Your task to perform on an android device: open wifi settings Image 0: 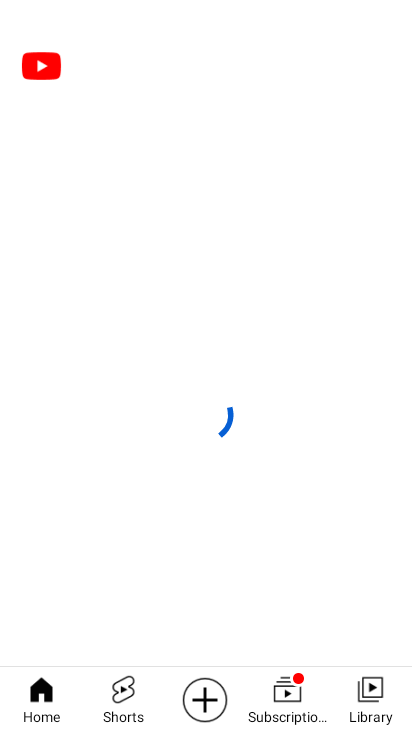
Step 0: click (263, 71)
Your task to perform on an android device: open wifi settings Image 1: 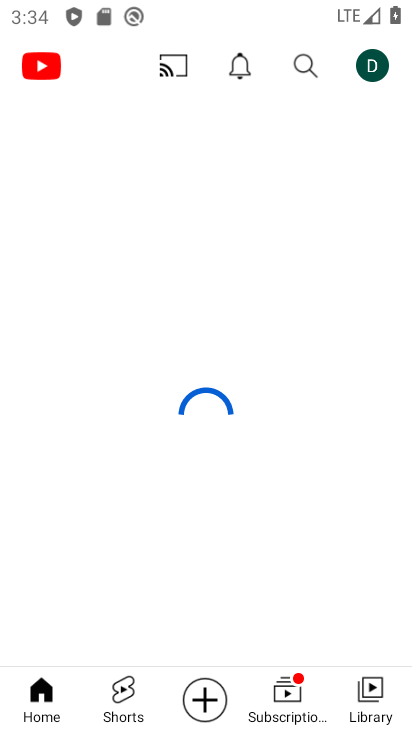
Step 1: press home button
Your task to perform on an android device: open wifi settings Image 2: 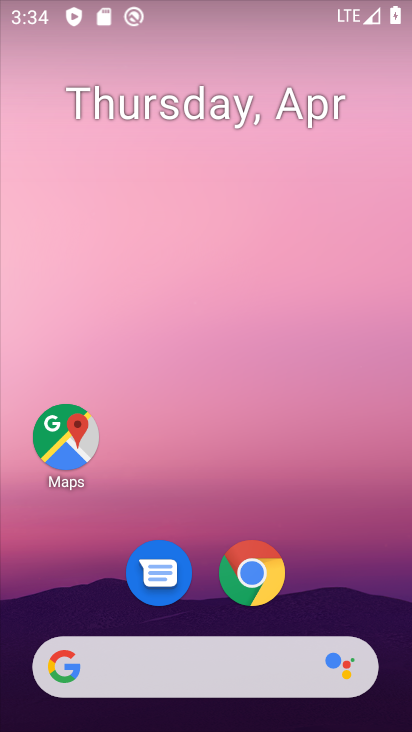
Step 2: drag from (352, 606) to (265, 80)
Your task to perform on an android device: open wifi settings Image 3: 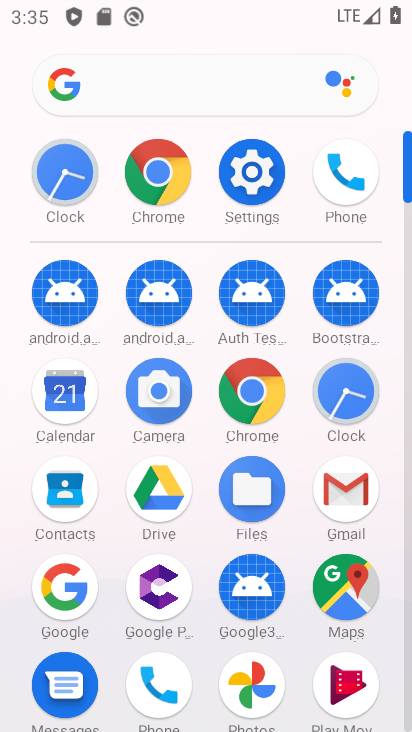
Step 3: click (217, 185)
Your task to perform on an android device: open wifi settings Image 4: 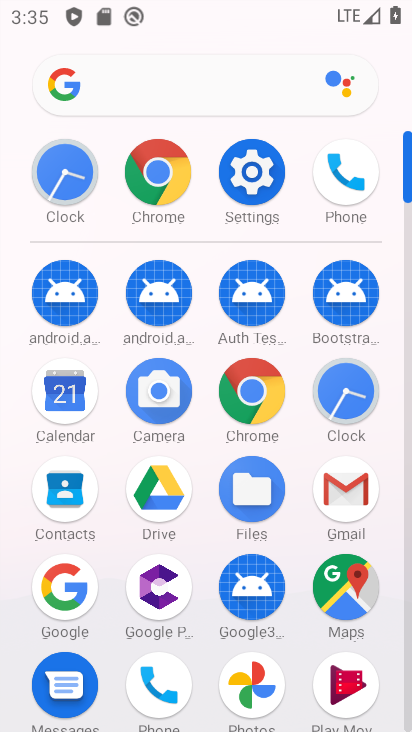
Step 4: click (250, 170)
Your task to perform on an android device: open wifi settings Image 5: 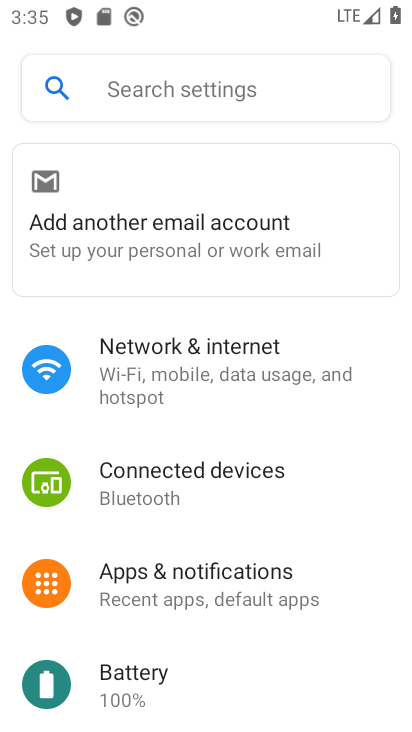
Step 5: click (200, 384)
Your task to perform on an android device: open wifi settings Image 6: 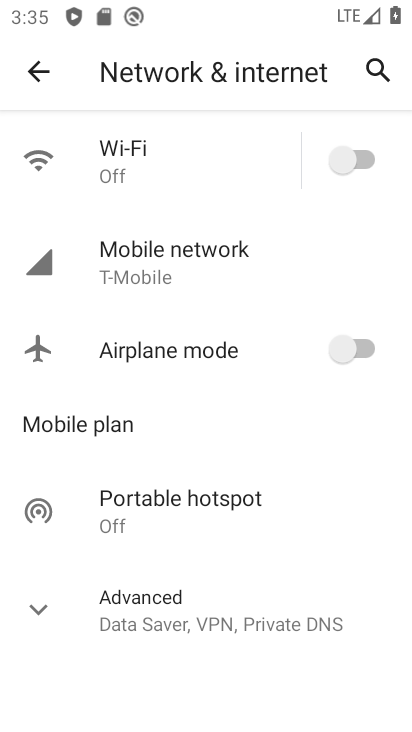
Step 6: click (150, 175)
Your task to perform on an android device: open wifi settings Image 7: 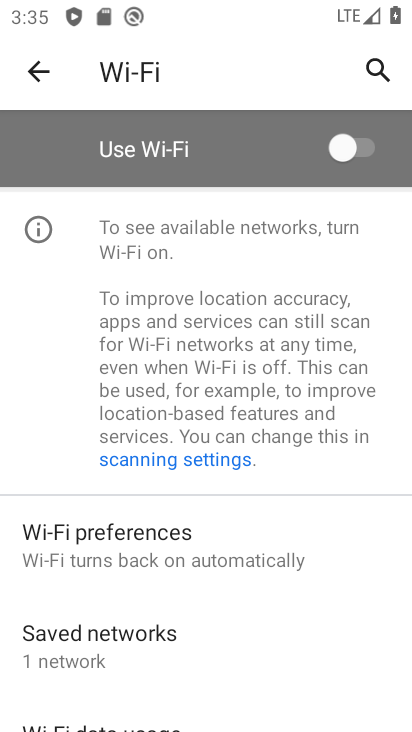
Step 7: task complete